Your task to perform on an android device: Go to network settings Image 0: 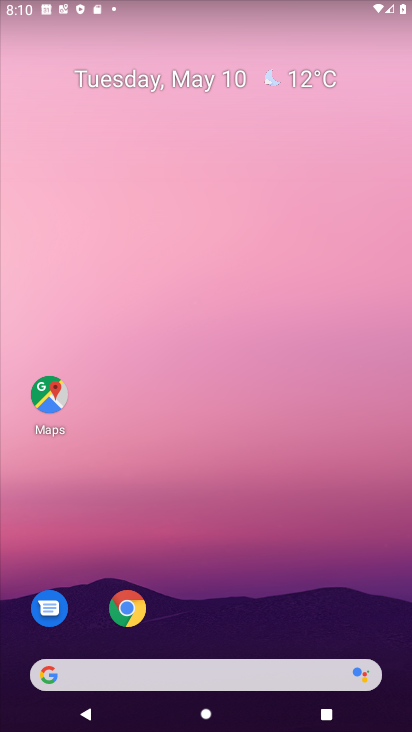
Step 0: drag from (179, 644) to (263, 154)
Your task to perform on an android device: Go to network settings Image 1: 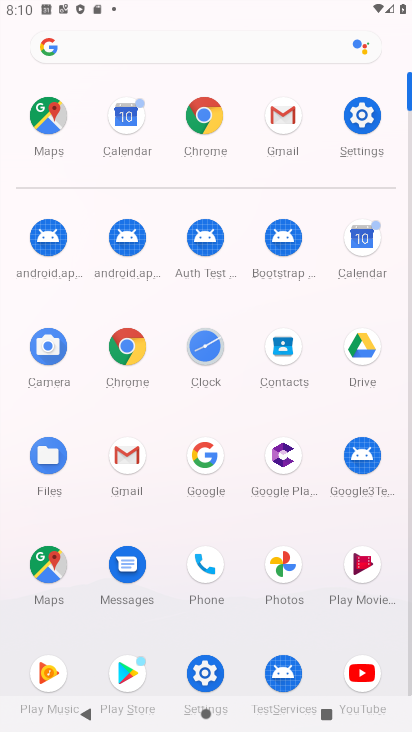
Step 1: click (356, 118)
Your task to perform on an android device: Go to network settings Image 2: 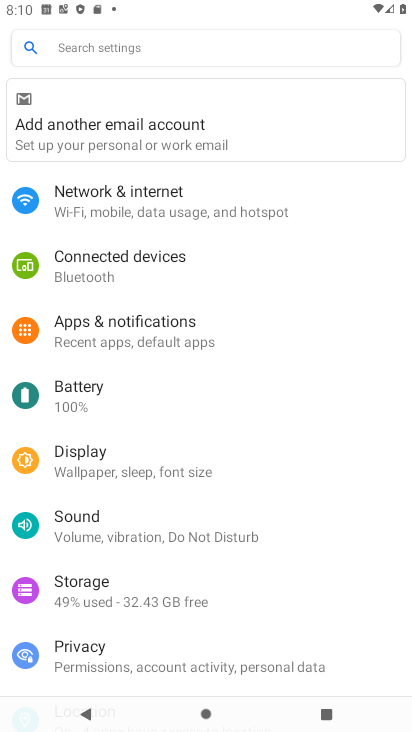
Step 2: click (82, 195)
Your task to perform on an android device: Go to network settings Image 3: 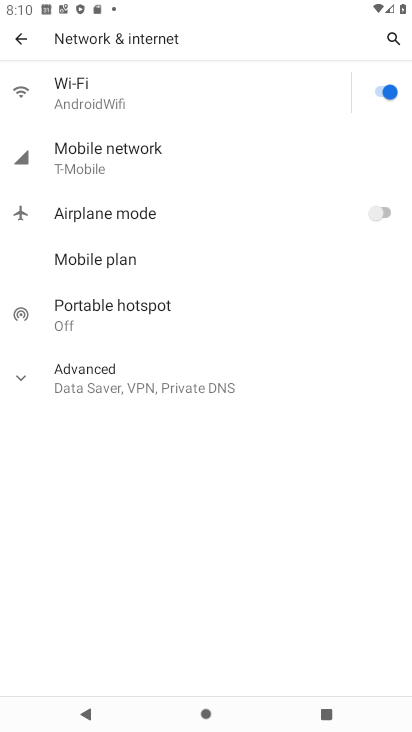
Step 3: click (124, 151)
Your task to perform on an android device: Go to network settings Image 4: 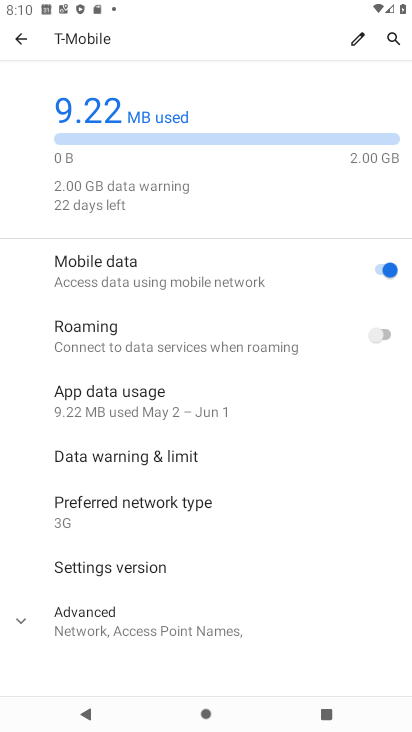
Step 4: drag from (232, 551) to (324, 314)
Your task to perform on an android device: Go to network settings Image 5: 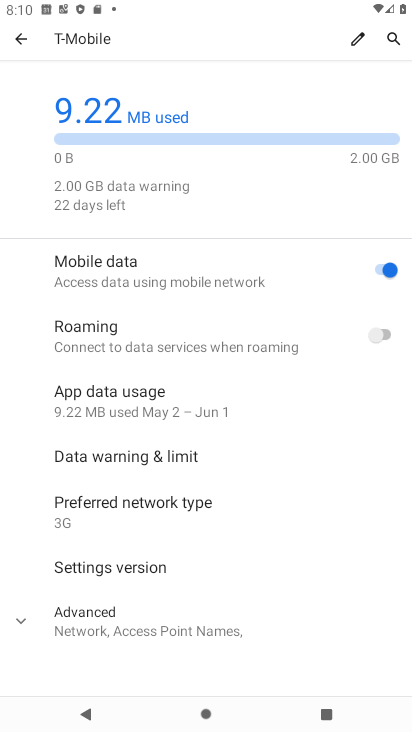
Step 5: click (95, 622)
Your task to perform on an android device: Go to network settings Image 6: 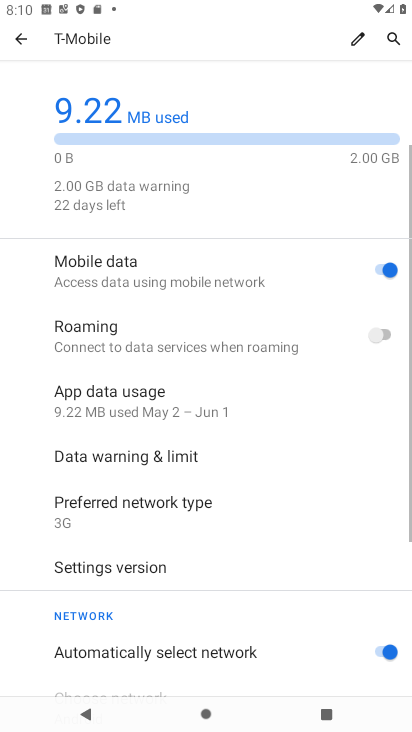
Step 6: task complete